Your task to perform on an android device: Go to Android settings Image 0: 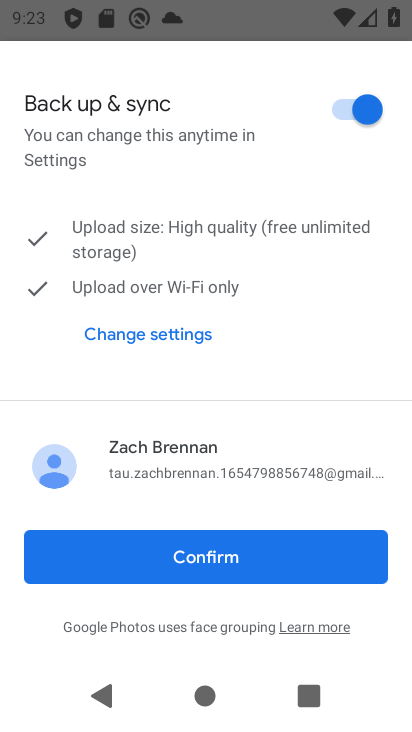
Step 0: press home button
Your task to perform on an android device: Go to Android settings Image 1: 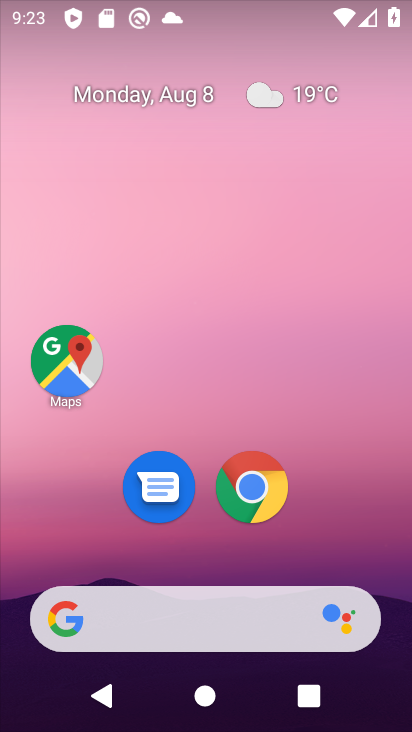
Step 1: drag from (217, 570) to (209, 142)
Your task to perform on an android device: Go to Android settings Image 2: 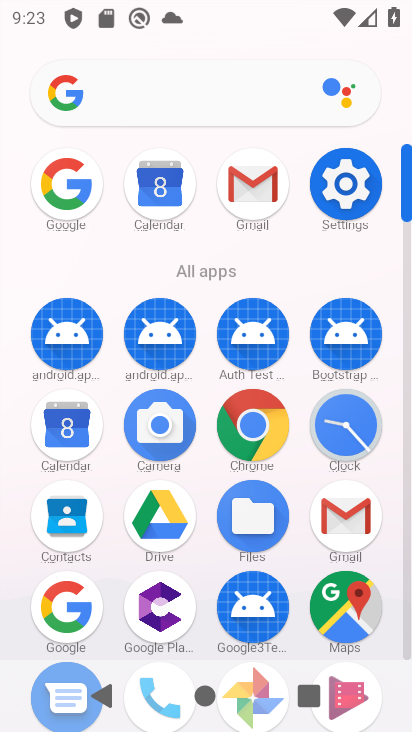
Step 2: click (345, 187)
Your task to perform on an android device: Go to Android settings Image 3: 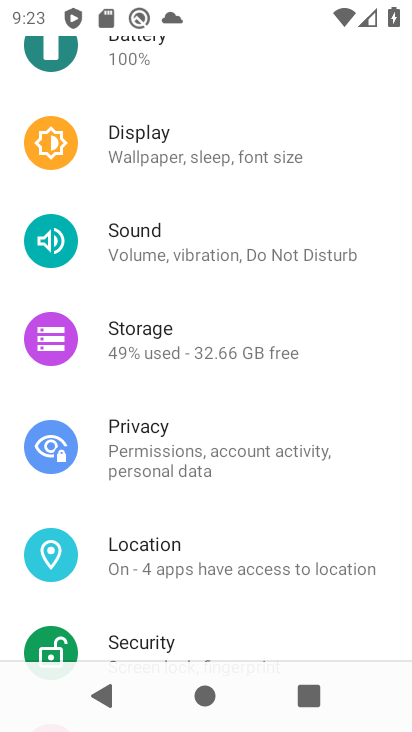
Step 3: task complete